Your task to perform on an android device: refresh tabs in the chrome app Image 0: 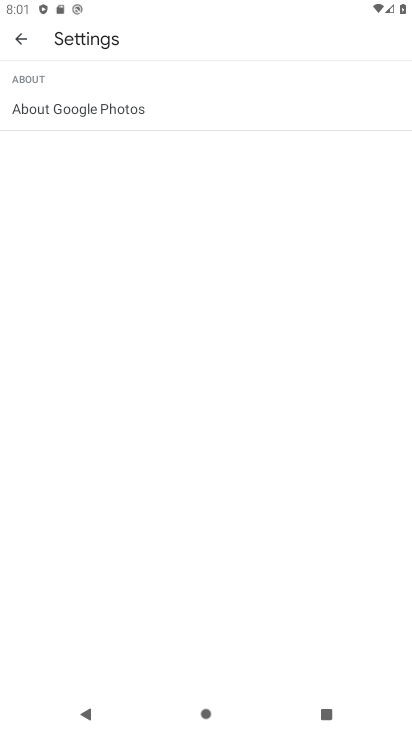
Step 0: press home button
Your task to perform on an android device: refresh tabs in the chrome app Image 1: 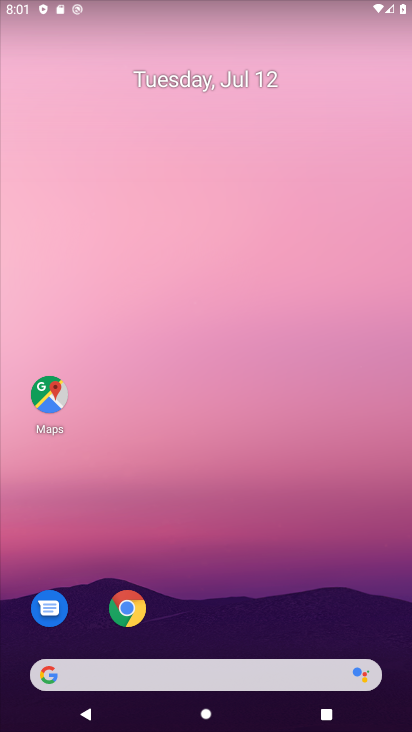
Step 1: click (121, 603)
Your task to perform on an android device: refresh tabs in the chrome app Image 2: 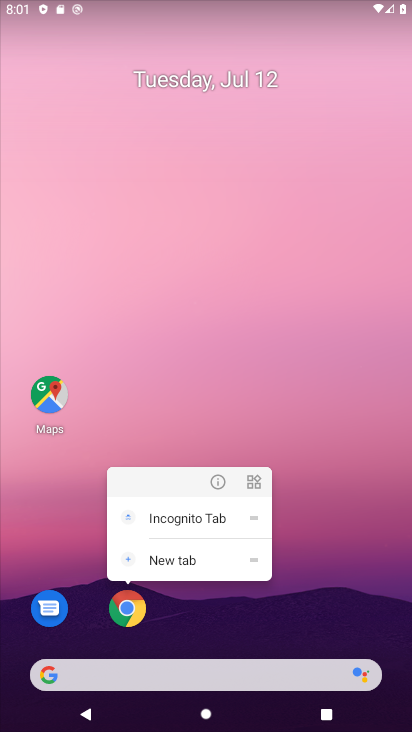
Step 2: click (129, 611)
Your task to perform on an android device: refresh tabs in the chrome app Image 3: 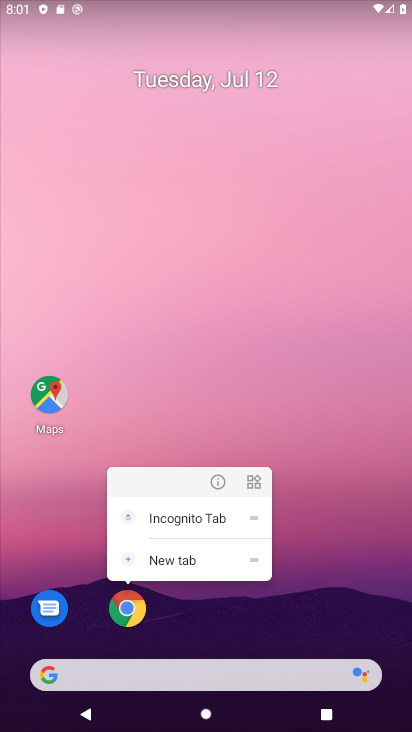
Step 3: click (129, 609)
Your task to perform on an android device: refresh tabs in the chrome app Image 4: 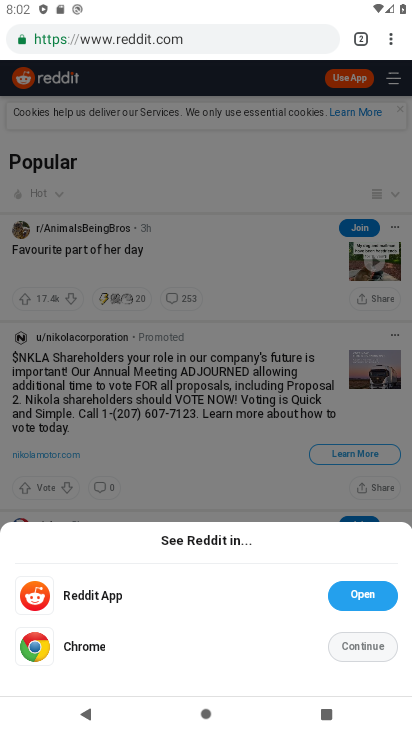
Step 4: click (392, 48)
Your task to perform on an android device: refresh tabs in the chrome app Image 5: 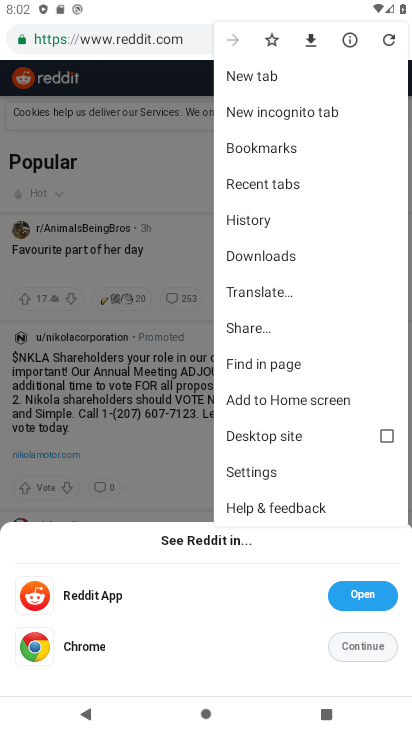
Step 5: click (386, 41)
Your task to perform on an android device: refresh tabs in the chrome app Image 6: 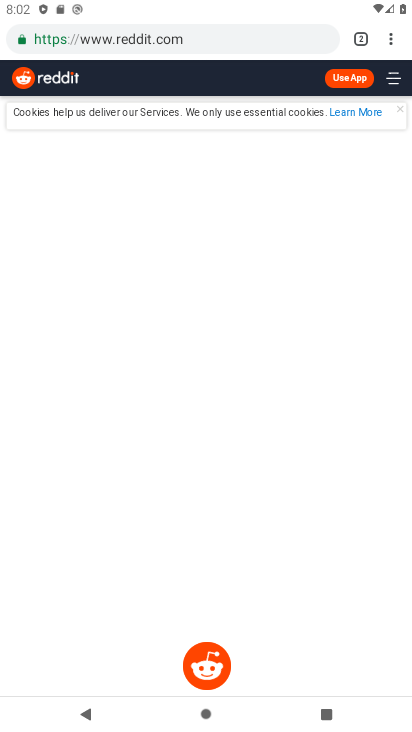
Step 6: task complete